Your task to perform on an android device: install app "Upside-Cash back on gas & food" Image 0: 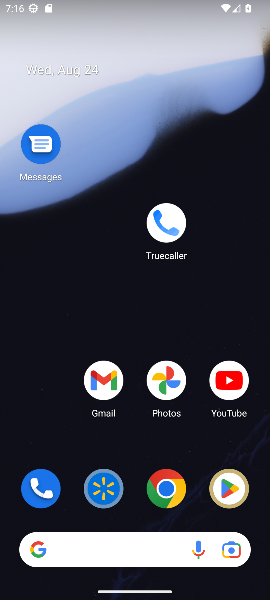
Step 0: click (222, 496)
Your task to perform on an android device: install app "Upside-Cash back on gas & food" Image 1: 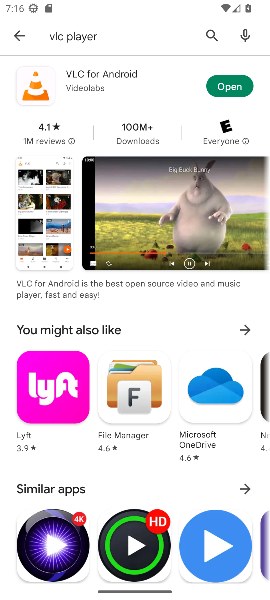
Step 1: click (208, 37)
Your task to perform on an android device: install app "Upside-Cash back on gas & food" Image 2: 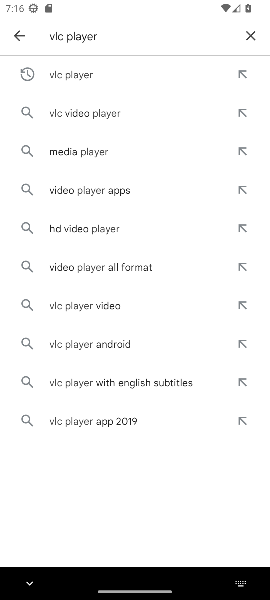
Step 2: click (243, 34)
Your task to perform on an android device: install app "Upside-Cash back on gas & food" Image 3: 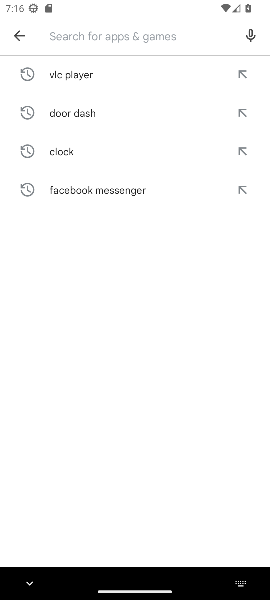
Step 3: type "upside"
Your task to perform on an android device: install app "Upside-Cash back on gas & food" Image 4: 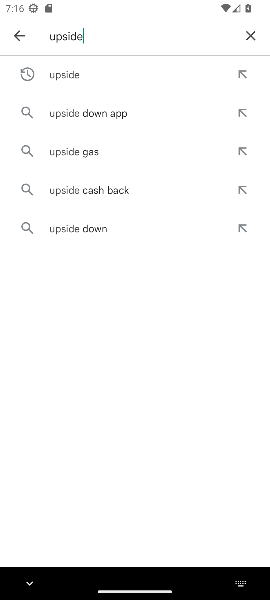
Step 4: click (110, 70)
Your task to perform on an android device: install app "Upside-Cash back on gas & food" Image 5: 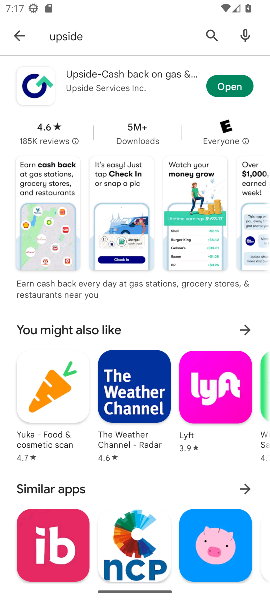
Step 5: click (215, 81)
Your task to perform on an android device: install app "Upside-Cash back on gas & food" Image 6: 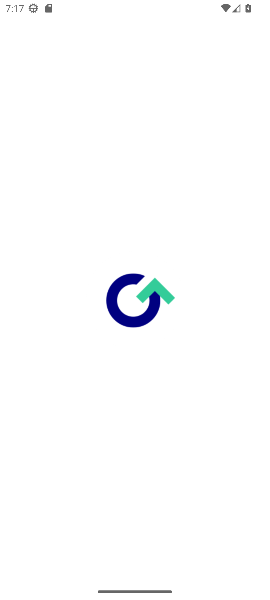
Step 6: task complete